Your task to perform on an android device: allow cookies in the chrome app Image 0: 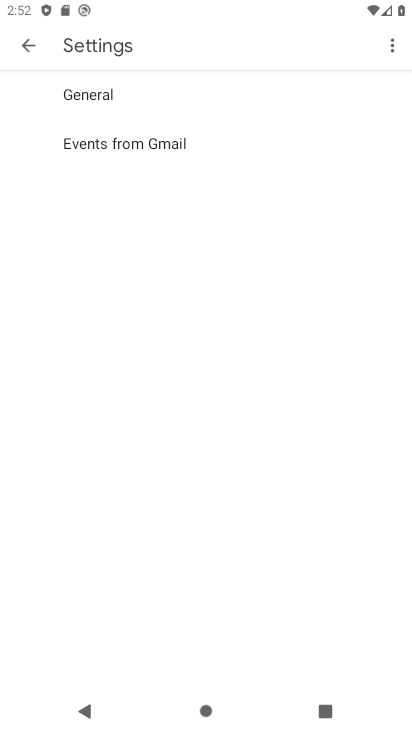
Step 0: press home button
Your task to perform on an android device: allow cookies in the chrome app Image 1: 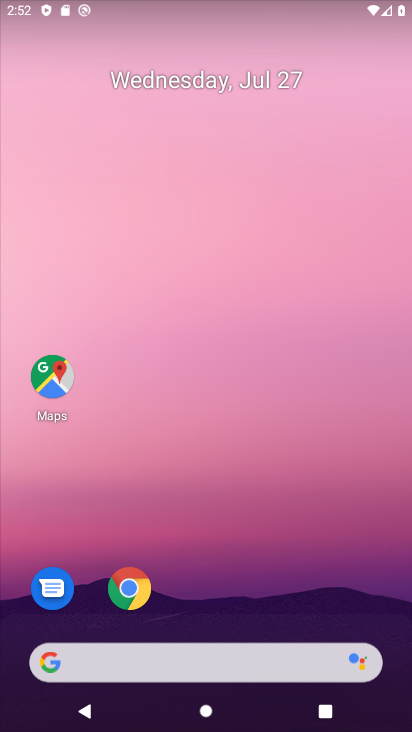
Step 1: click (138, 594)
Your task to perform on an android device: allow cookies in the chrome app Image 2: 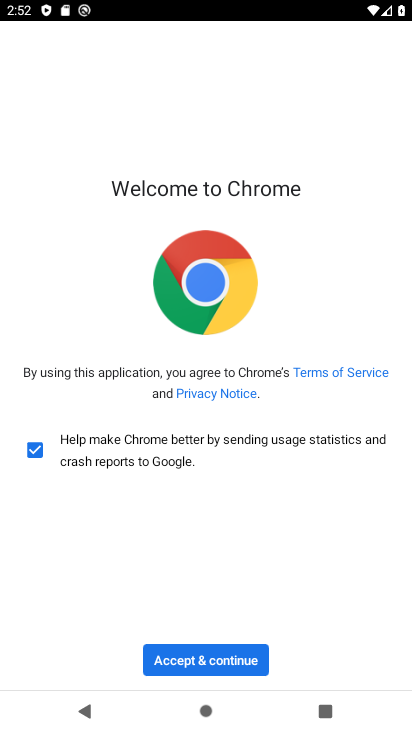
Step 2: click (197, 668)
Your task to perform on an android device: allow cookies in the chrome app Image 3: 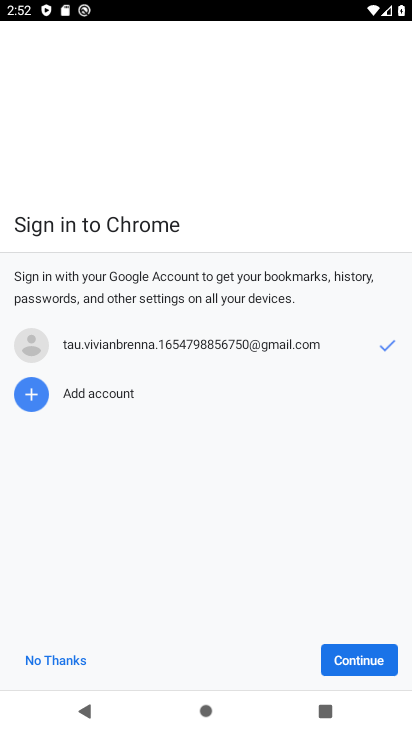
Step 3: click (348, 650)
Your task to perform on an android device: allow cookies in the chrome app Image 4: 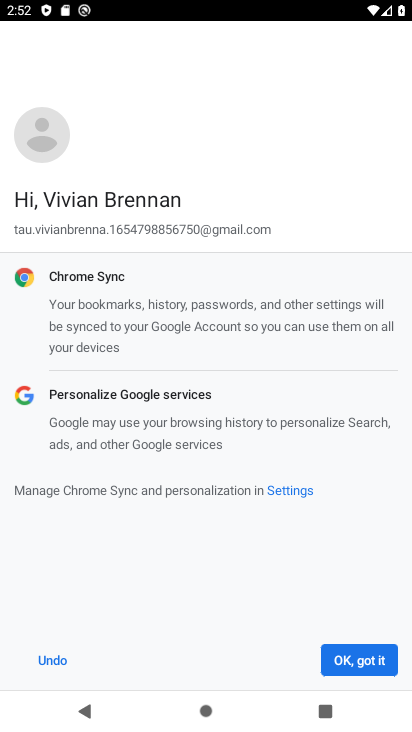
Step 4: click (348, 650)
Your task to perform on an android device: allow cookies in the chrome app Image 5: 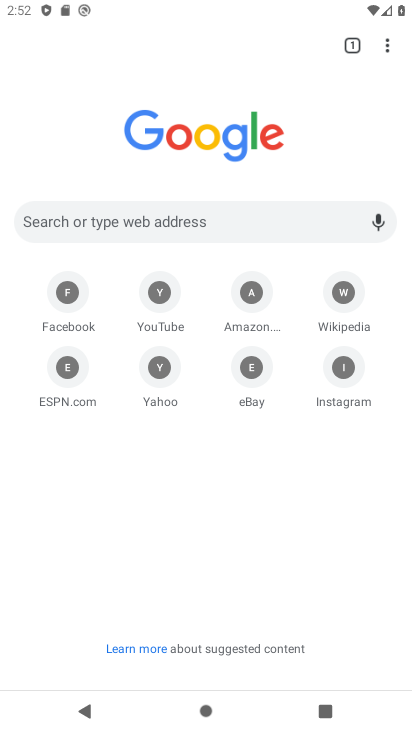
Step 5: click (391, 49)
Your task to perform on an android device: allow cookies in the chrome app Image 6: 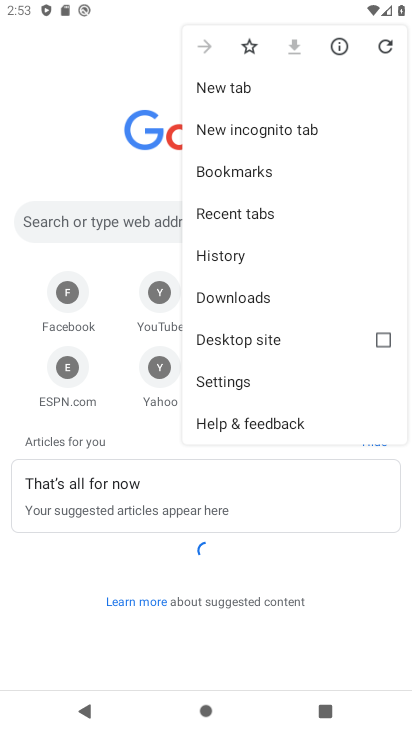
Step 6: click (287, 378)
Your task to perform on an android device: allow cookies in the chrome app Image 7: 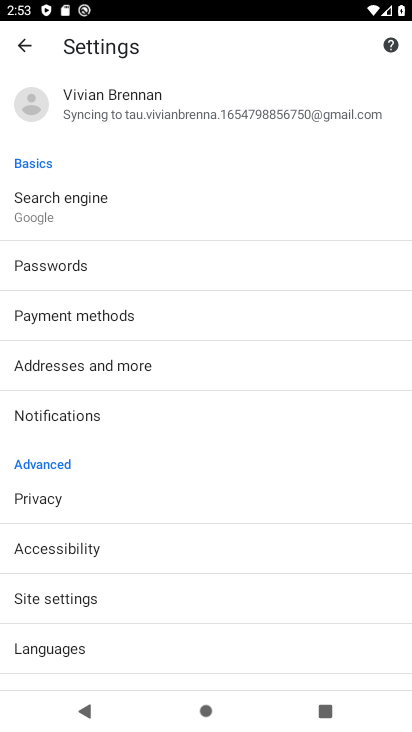
Step 7: click (196, 608)
Your task to perform on an android device: allow cookies in the chrome app Image 8: 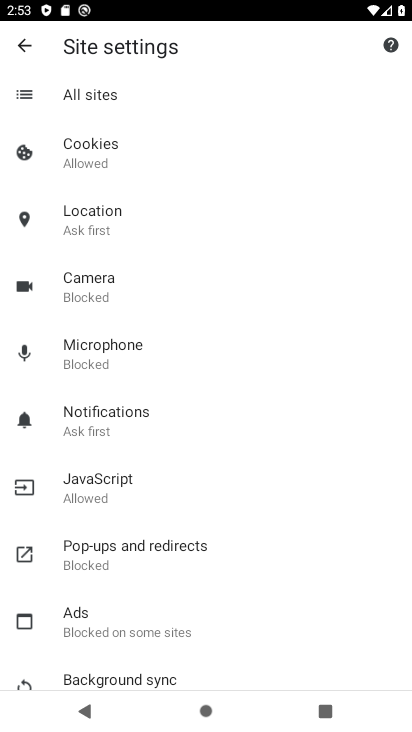
Step 8: click (154, 153)
Your task to perform on an android device: allow cookies in the chrome app Image 9: 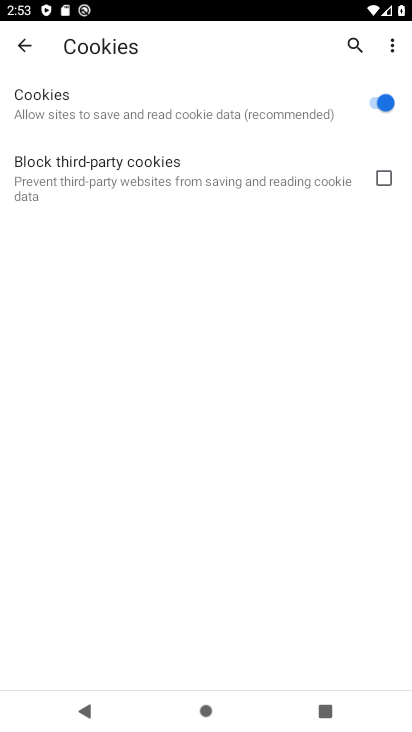
Step 9: task complete